Your task to perform on an android device: turn on showing notifications on the lock screen Image 0: 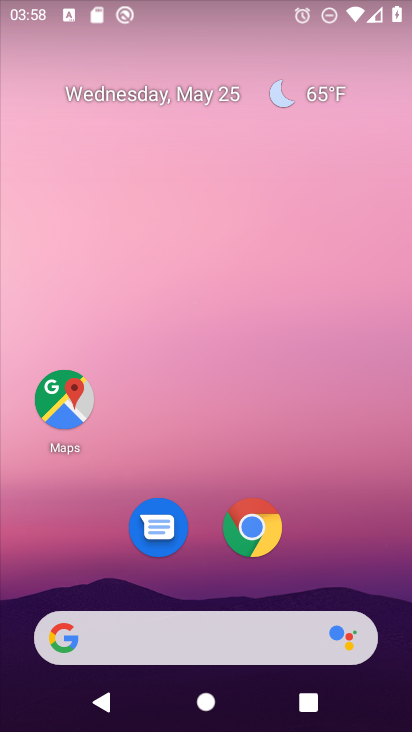
Step 0: drag from (228, 609) to (405, 329)
Your task to perform on an android device: turn on showing notifications on the lock screen Image 1: 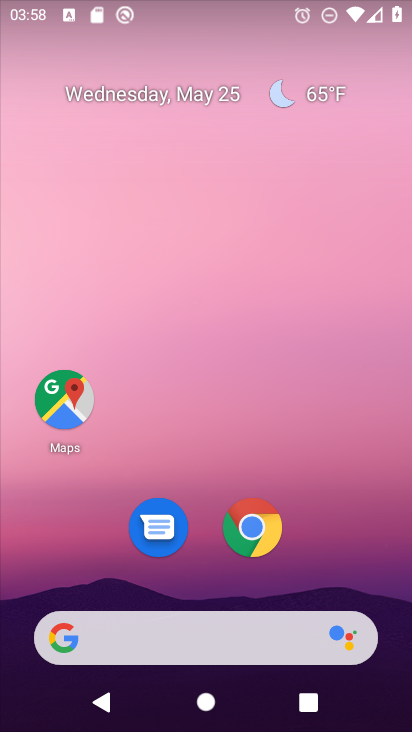
Step 1: click (38, 140)
Your task to perform on an android device: turn on showing notifications on the lock screen Image 2: 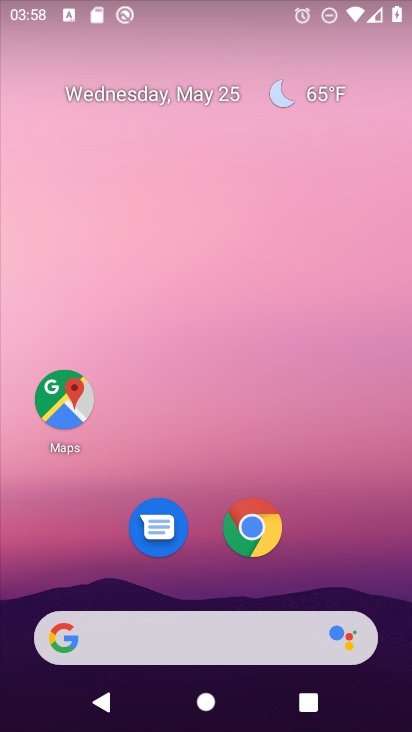
Step 2: drag from (204, 577) to (411, 231)
Your task to perform on an android device: turn on showing notifications on the lock screen Image 3: 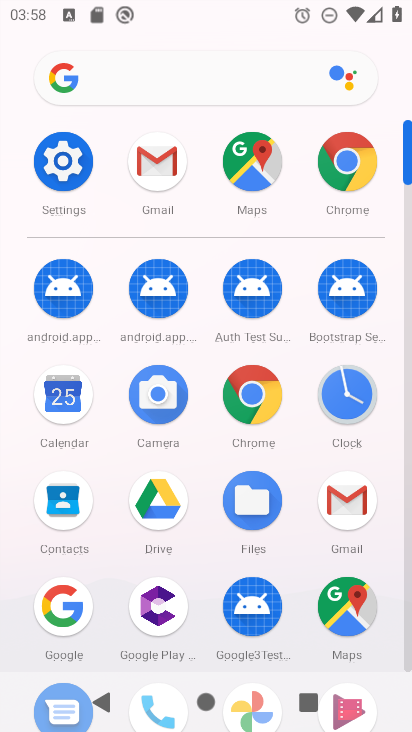
Step 3: click (76, 163)
Your task to perform on an android device: turn on showing notifications on the lock screen Image 4: 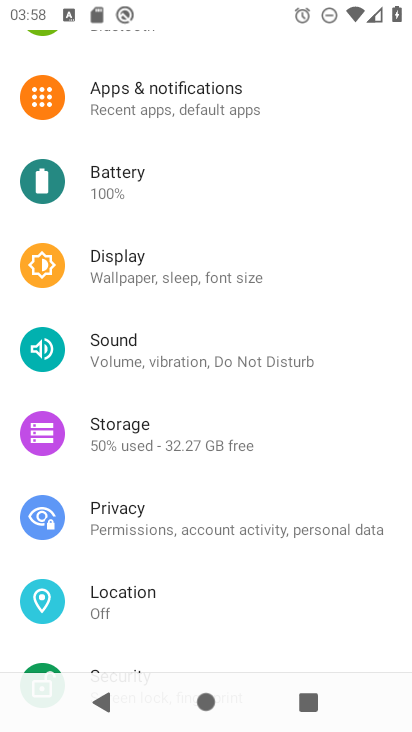
Step 4: click (198, 101)
Your task to perform on an android device: turn on showing notifications on the lock screen Image 5: 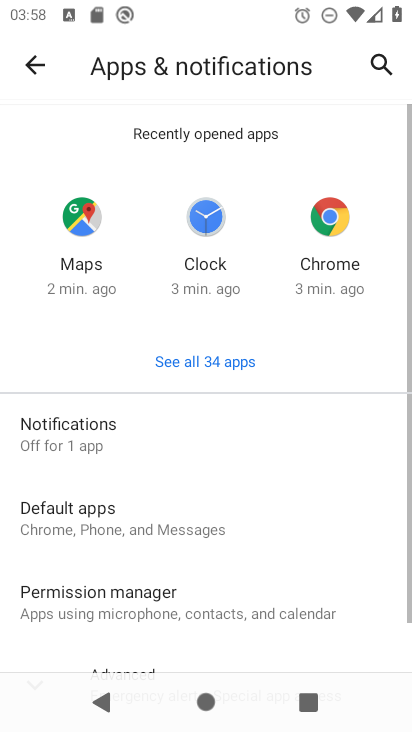
Step 5: drag from (253, 620) to (265, 147)
Your task to perform on an android device: turn on showing notifications on the lock screen Image 6: 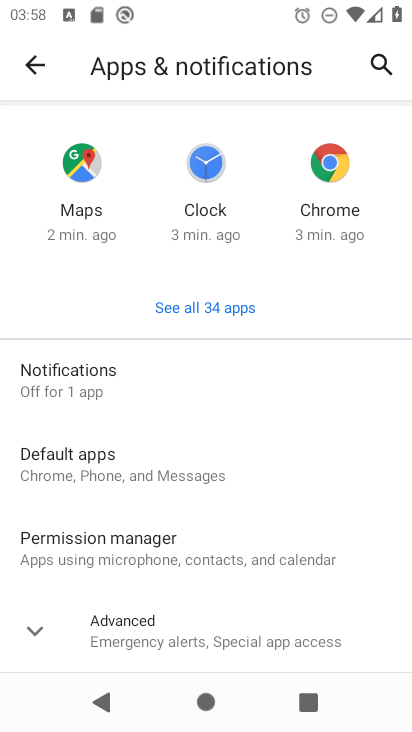
Step 6: click (86, 392)
Your task to perform on an android device: turn on showing notifications on the lock screen Image 7: 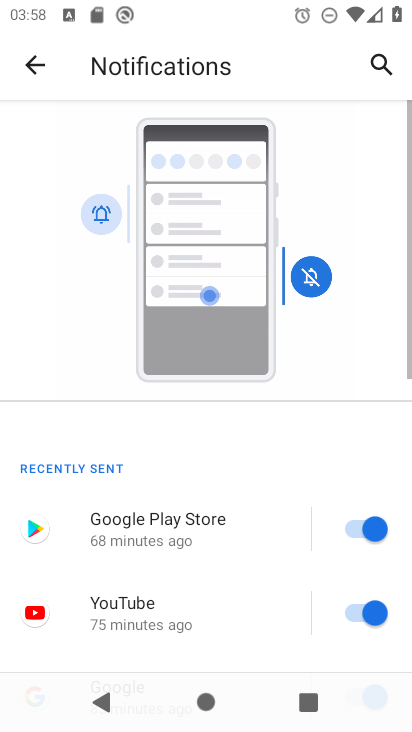
Step 7: drag from (242, 571) to (286, 39)
Your task to perform on an android device: turn on showing notifications on the lock screen Image 8: 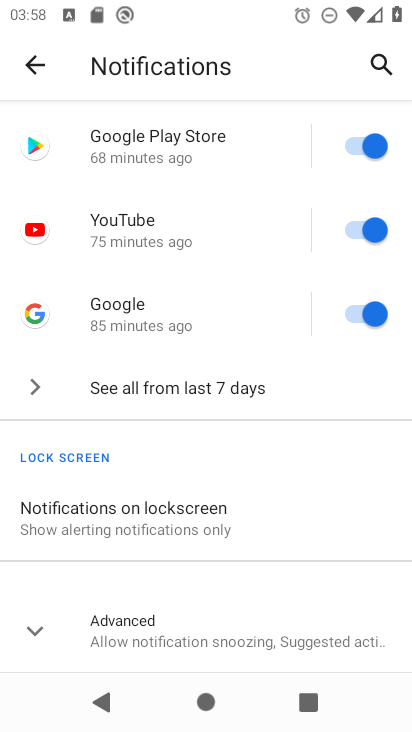
Step 8: click (199, 535)
Your task to perform on an android device: turn on showing notifications on the lock screen Image 9: 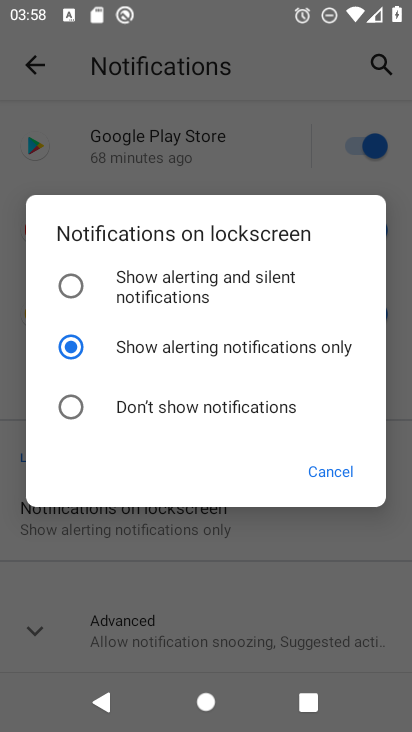
Step 9: click (83, 291)
Your task to perform on an android device: turn on showing notifications on the lock screen Image 10: 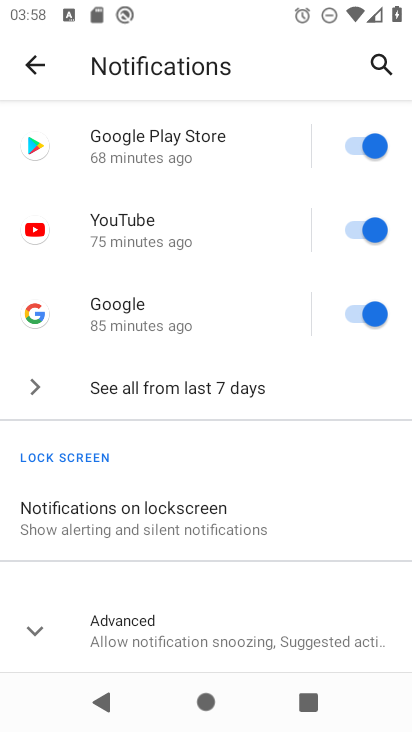
Step 10: task complete